Your task to perform on an android device: open a new tab in the chrome app Image 0: 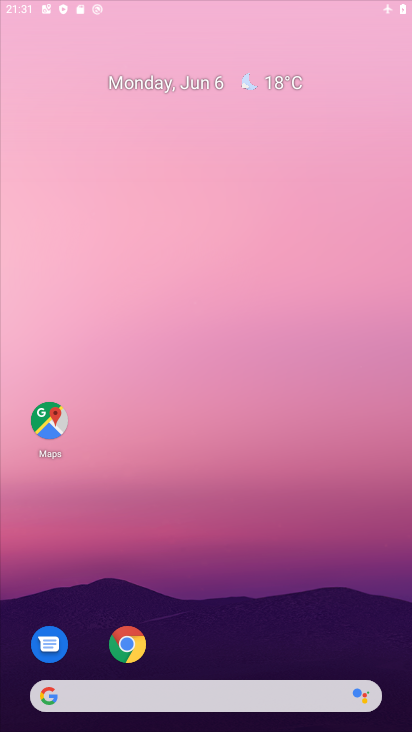
Step 0: drag from (319, 309) to (309, 183)
Your task to perform on an android device: open a new tab in the chrome app Image 1: 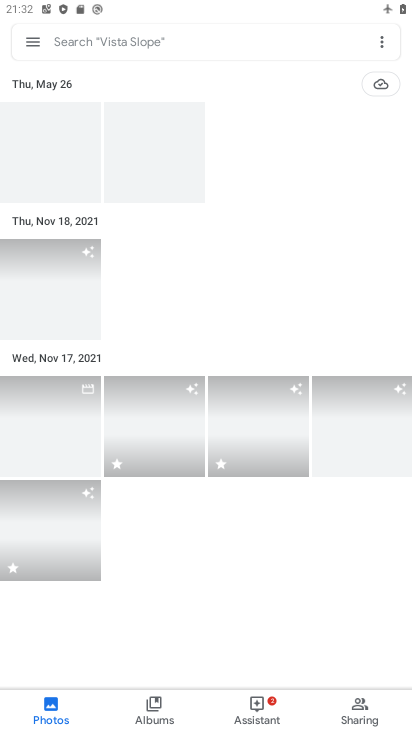
Step 1: press home button
Your task to perform on an android device: open a new tab in the chrome app Image 2: 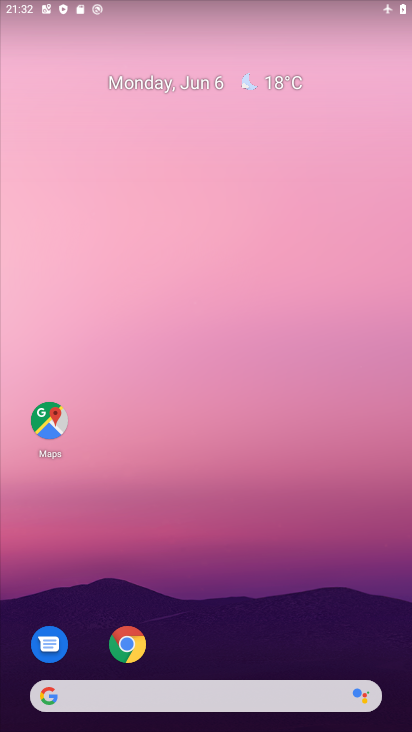
Step 2: drag from (306, 620) to (335, 213)
Your task to perform on an android device: open a new tab in the chrome app Image 3: 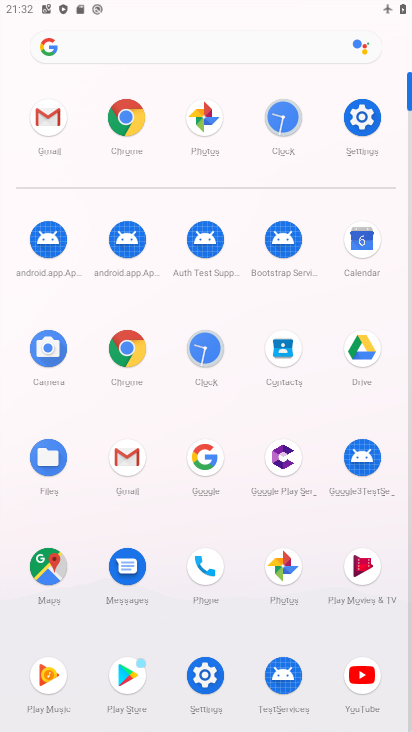
Step 3: click (133, 356)
Your task to perform on an android device: open a new tab in the chrome app Image 4: 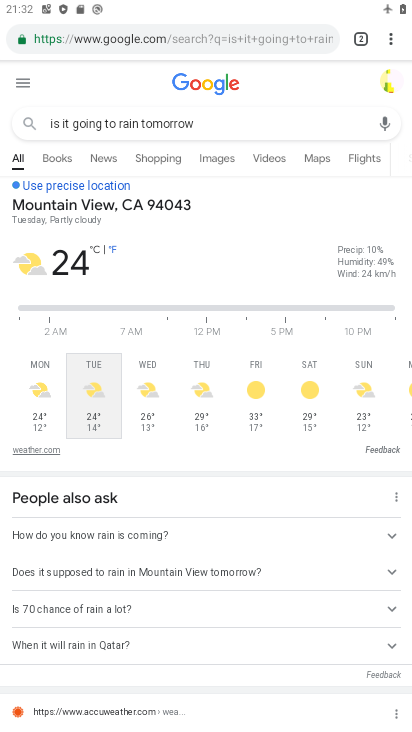
Step 4: click (359, 33)
Your task to perform on an android device: open a new tab in the chrome app Image 5: 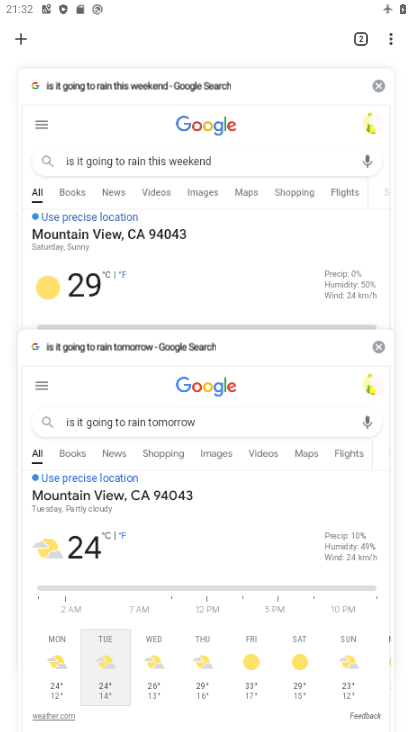
Step 5: click (12, 38)
Your task to perform on an android device: open a new tab in the chrome app Image 6: 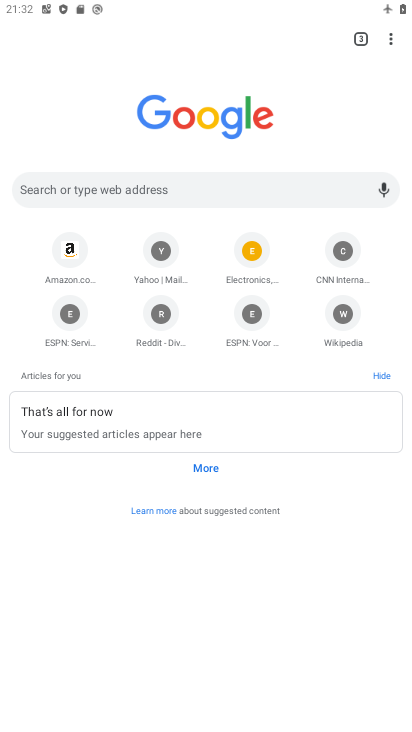
Step 6: task complete